Your task to perform on an android device: find snoozed emails in the gmail app Image 0: 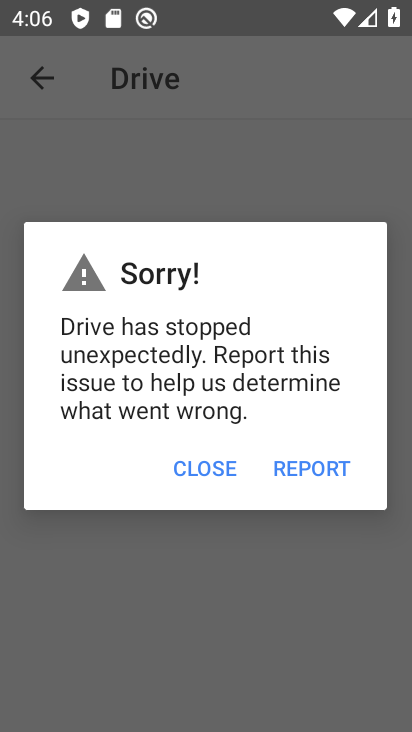
Step 0: task complete